Your task to perform on an android device: allow cookies in the chrome app Image 0: 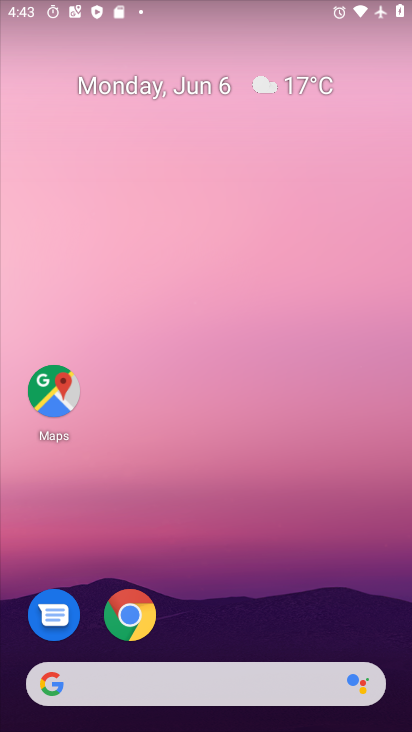
Step 0: drag from (235, 571) to (235, 38)
Your task to perform on an android device: allow cookies in the chrome app Image 1: 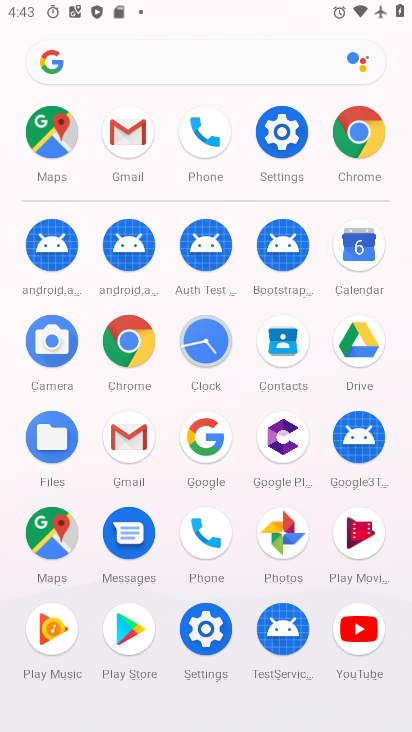
Step 1: drag from (7, 566) to (10, 246)
Your task to perform on an android device: allow cookies in the chrome app Image 2: 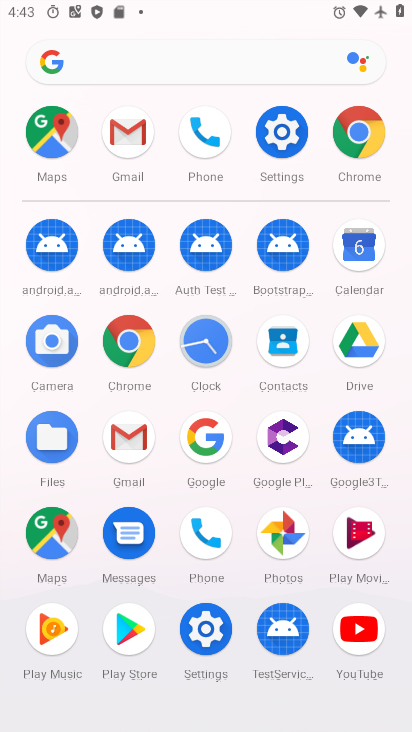
Step 2: click (126, 336)
Your task to perform on an android device: allow cookies in the chrome app Image 3: 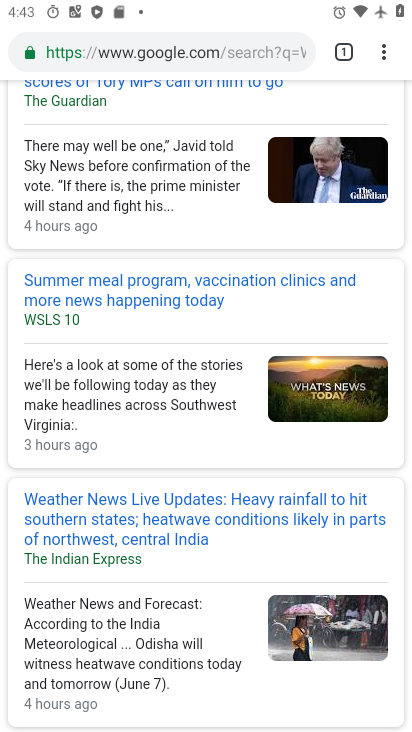
Step 3: drag from (386, 51) to (229, 575)
Your task to perform on an android device: allow cookies in the chrome app Image 4: 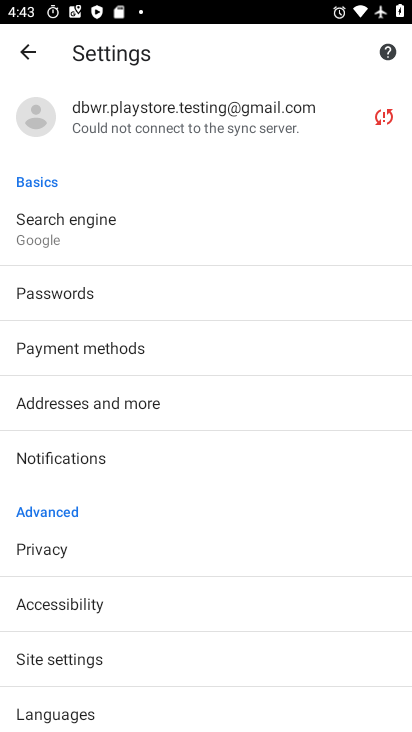
Step 4: drag from (212, 591) to (243, 293)
Your task to perform on an android device: allow cookies in the chrome app Image 5: 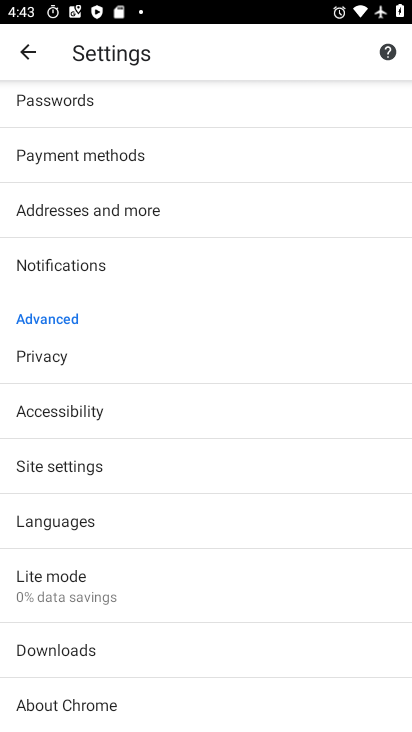
Step 5: click (111, 467)
Your task to perform on an android device: allow cookies in the chrome app Image 6: 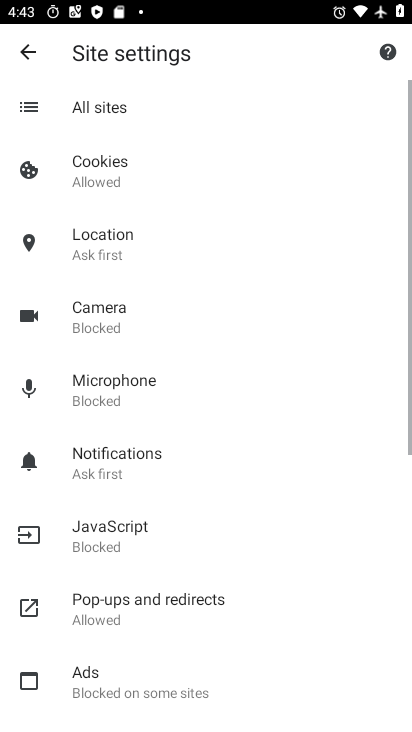
Step 6: click (142, 163)
Your task to perform on an android device: allow cookies in the chrome app Image 7: 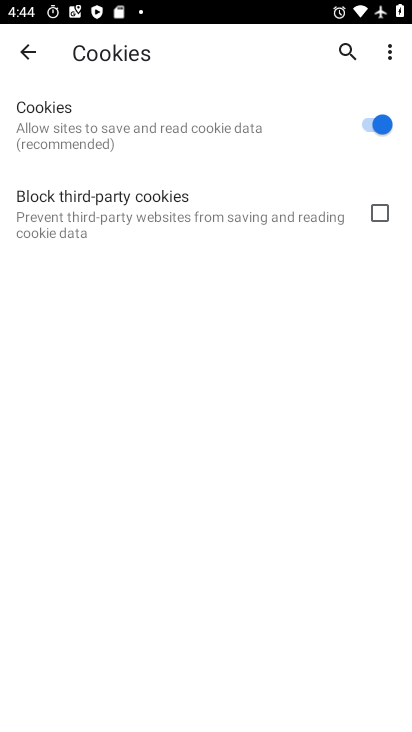
Step 7: task complete